Your task to perform on an android device: What's on my calendar today? Image 0: 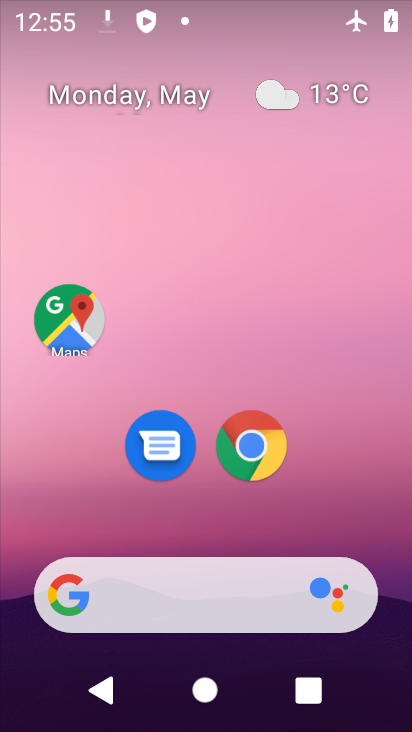
Step 0: drag from (300, 521) to (222, 109)
Your task to perform on an android device: What's on my calendar today? Image 1: 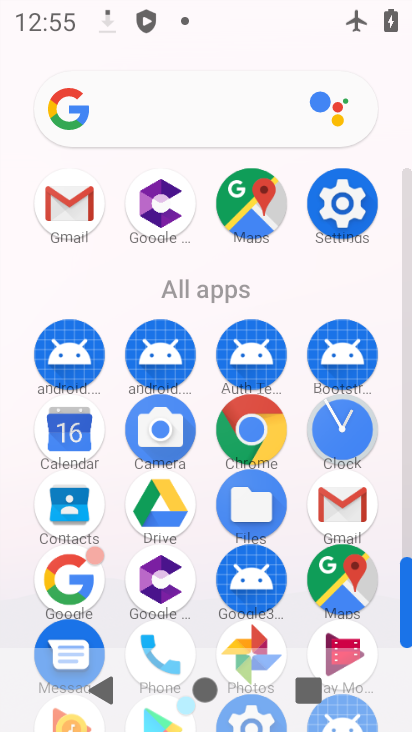
Step 1: click (66, 446)
Your task to perform on an android device: What's on my calendar today? Image 2: 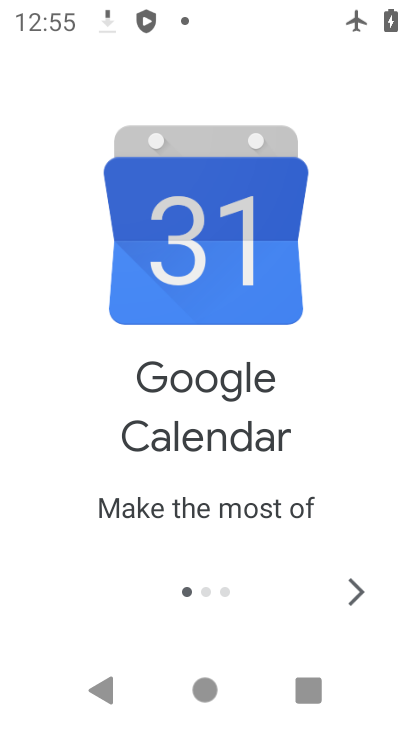
Step 2: click (354, 597)
Your task to perform on an android device: What's on my calendar today? Image 3: 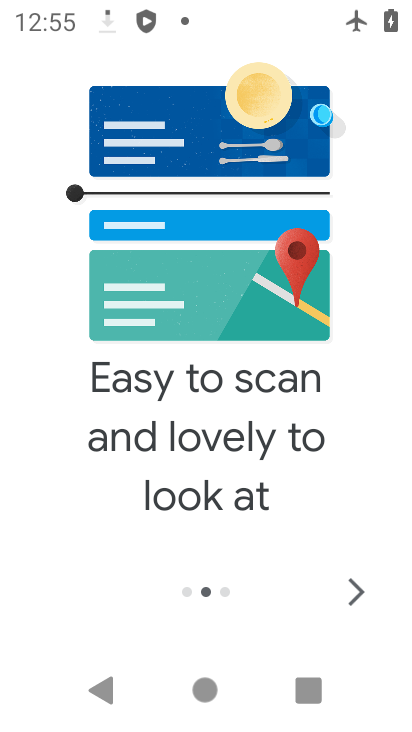
Step 3: click (354, 597)
Your task to perform on an android device: What's on my calendar today? Image 4: 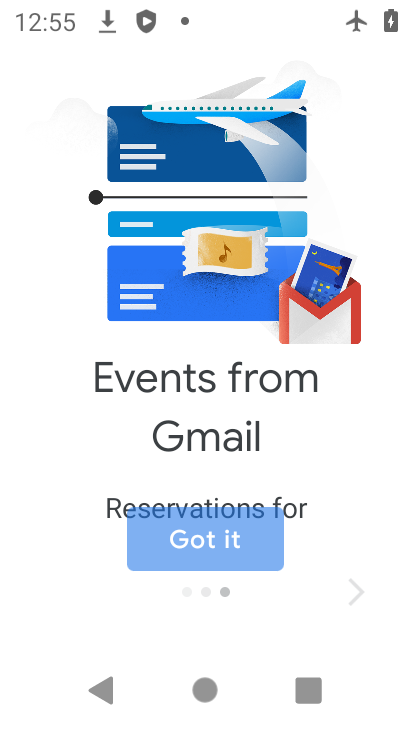
Step 4: click (354, 597)
Your task to perform on an android device: What's on my calendar today? Image 5: 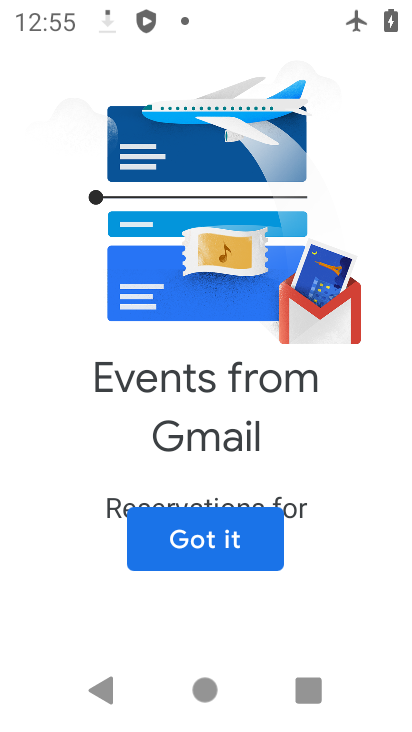
Step 5: click (243, 550)
Your task to perform on an android device: What's on my calendar today? Image 6: 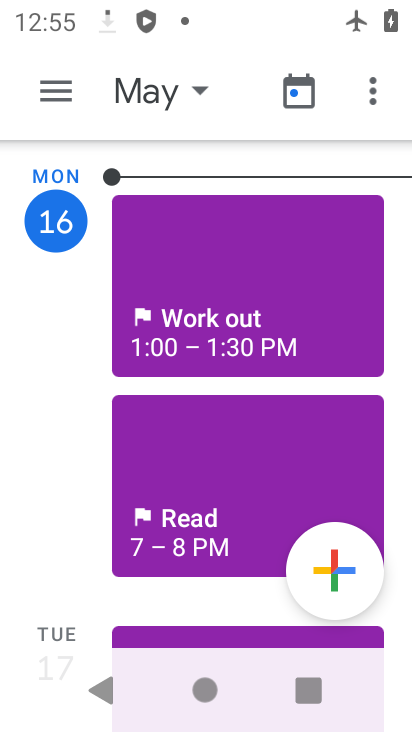
Step 6: task complete